Your task to perform on an android device: Open Google Maps and go to "Timeline" Image 0: 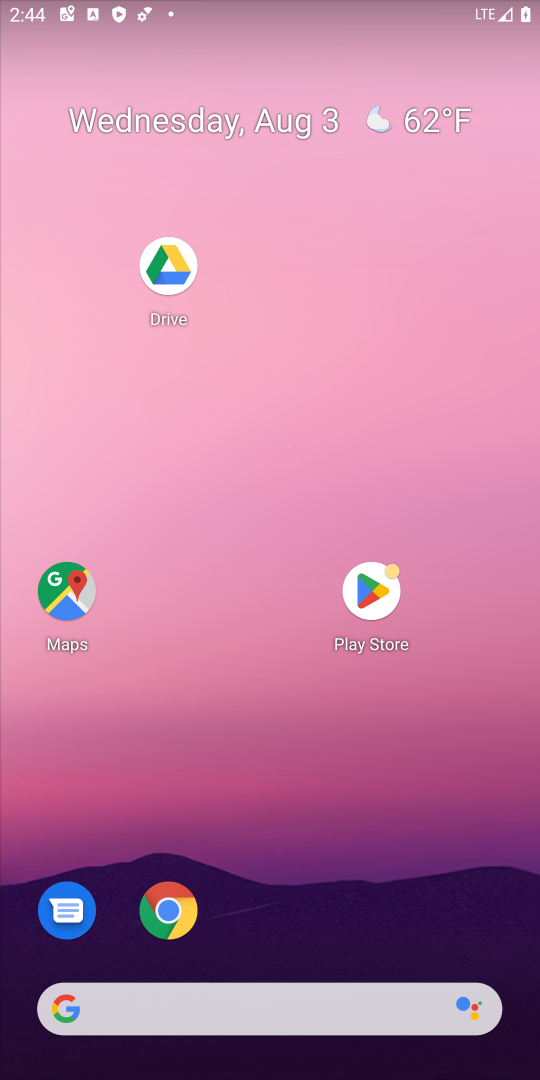
Step 0: drag from (335, 715) to (394, 101)
Your task to perform on an android device: Open Google Maps and go to "Timeline" Image 1: 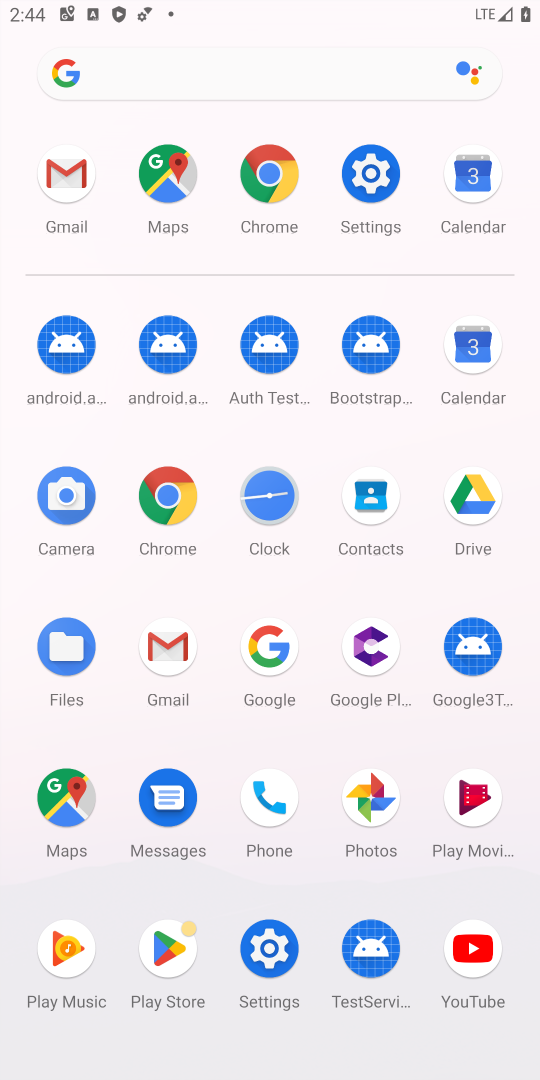
Step 1: click (70, 785)
Your task to perform on an android device: Open Google Maps and go to "Timeline" Image 2: 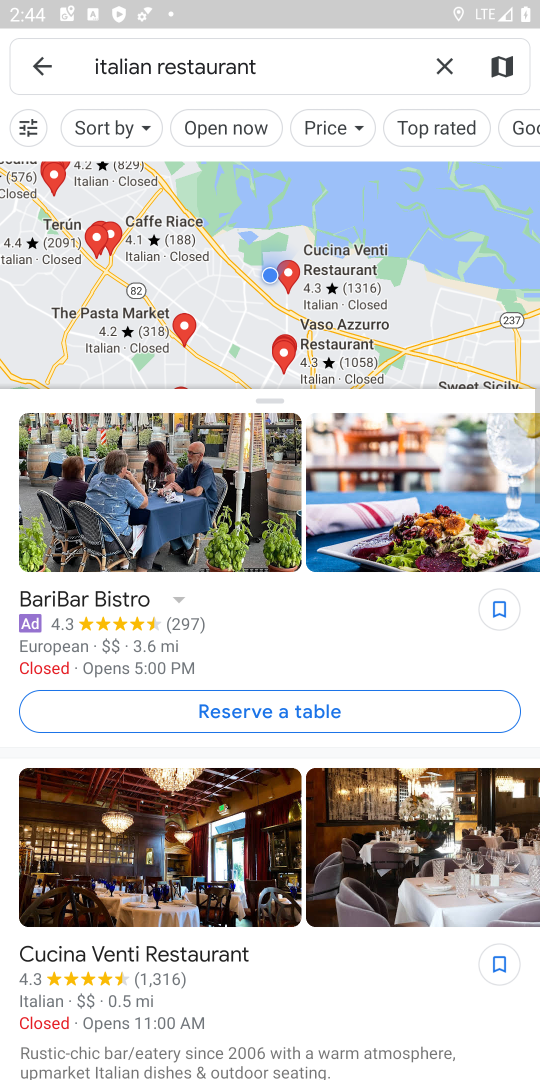
Step 2: press back button
Your task to perform on an android device: Open Google Maps and go to "Timeline" Image 3: 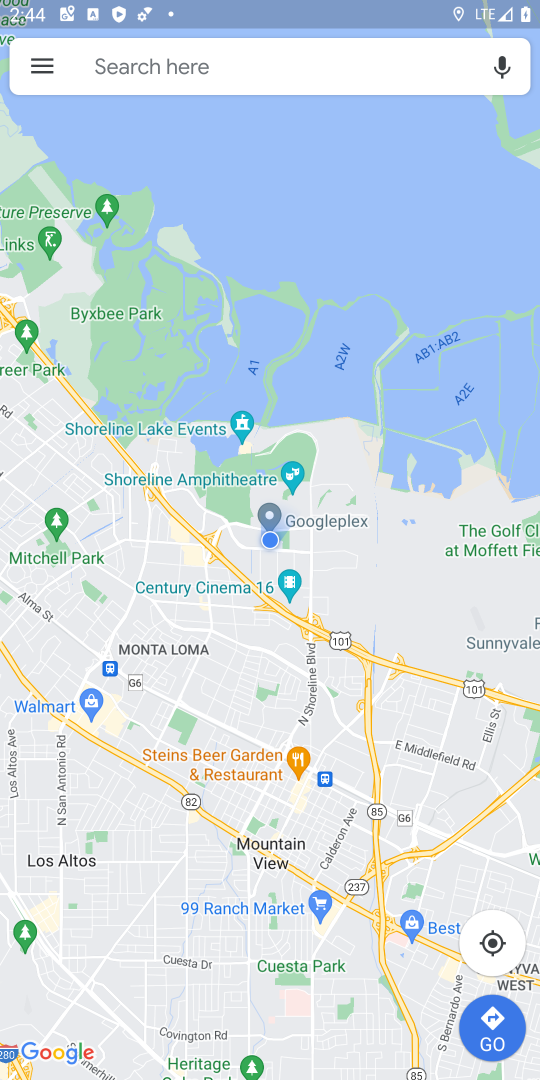
Step 3: click (32, 67)
Your task to perform on an android device: Open Google Maps and go to "Timeline" Image 4: 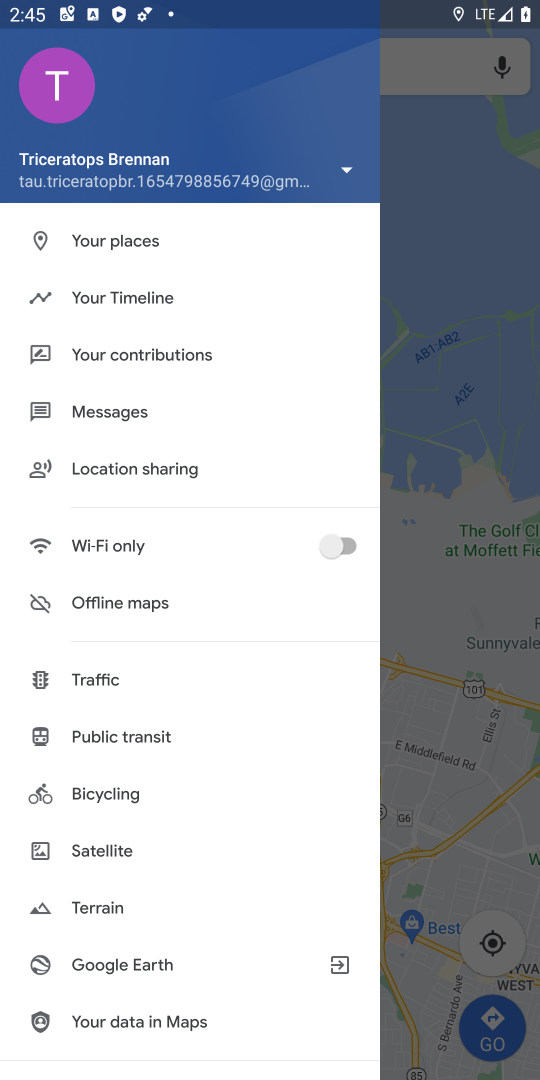
Step 4: click (106, 278)
Your task to perform on an android device: Open Google Maps and go to "Timeline" Image 5: 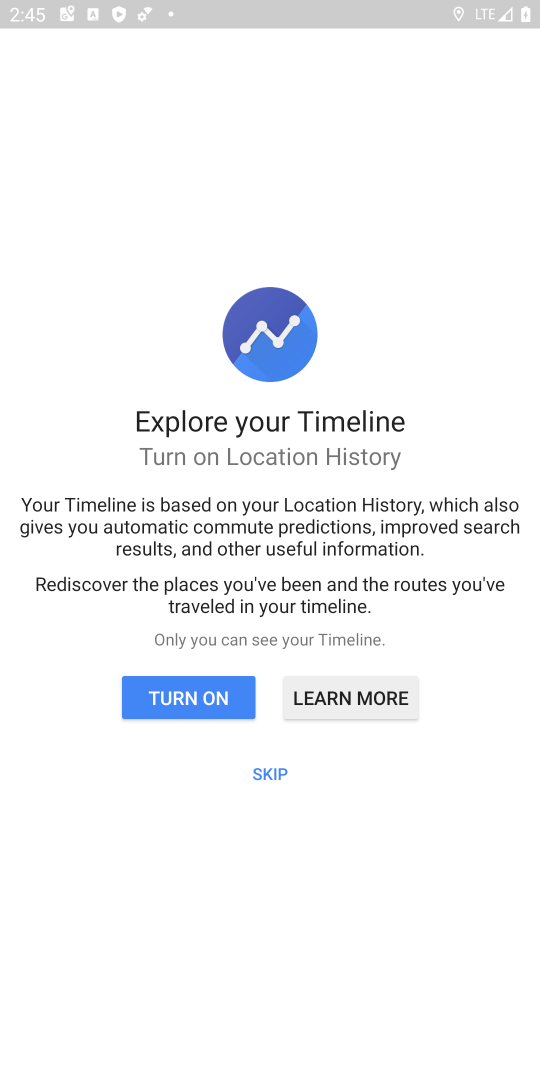
Step 5: click (260, 767)
Your task to perform on an android device: Open Google Maps and go to "Timeline" Image 6: 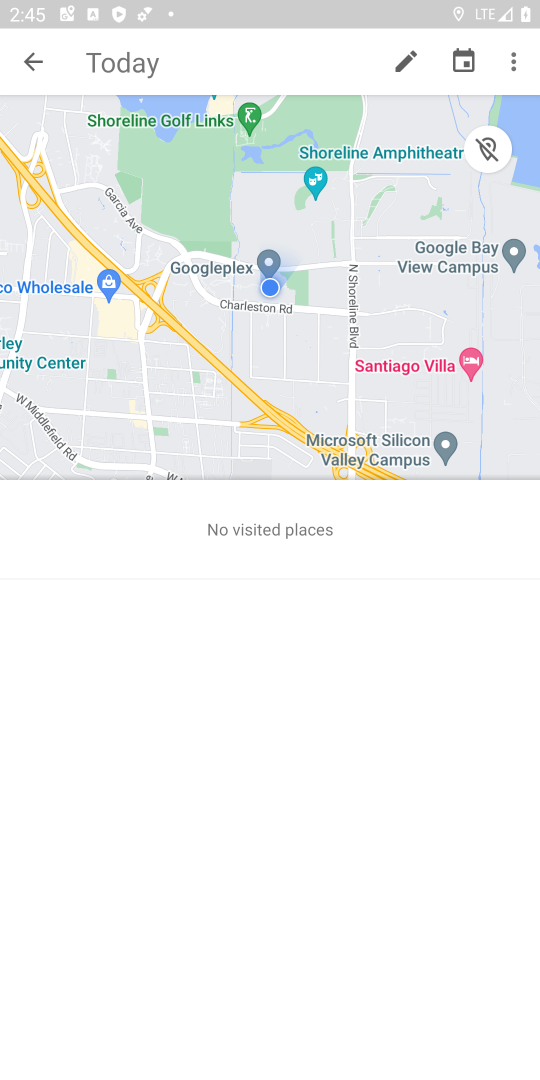
Step 6: click (521, 49)
Your task to perform on an android device: Open Google Maps and go to "Timeline" Image 7: 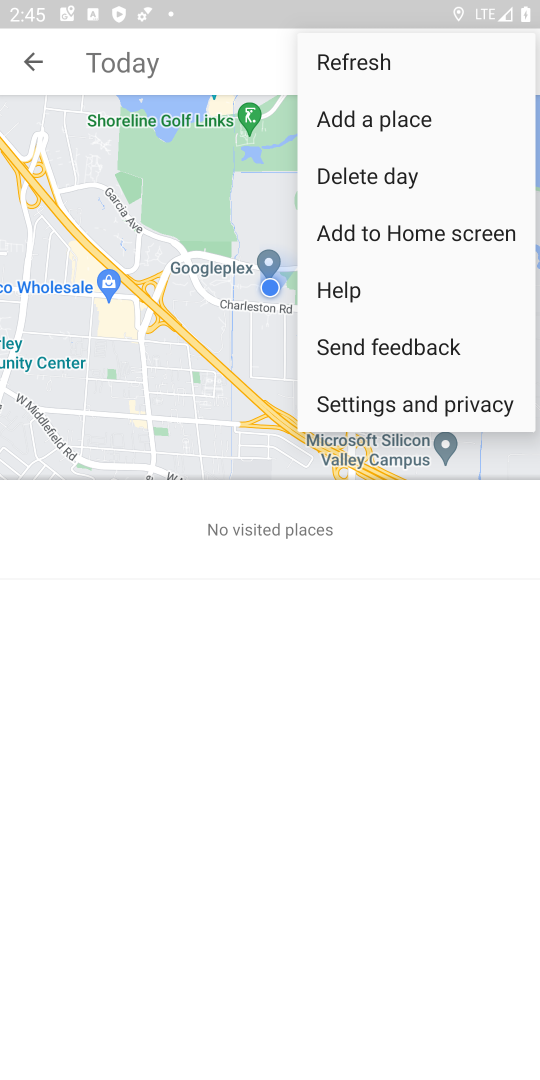
Step 7: click (447, 403)
Your task to perform on an android device: Open Google Maps and go to "Timeline" Image 8: 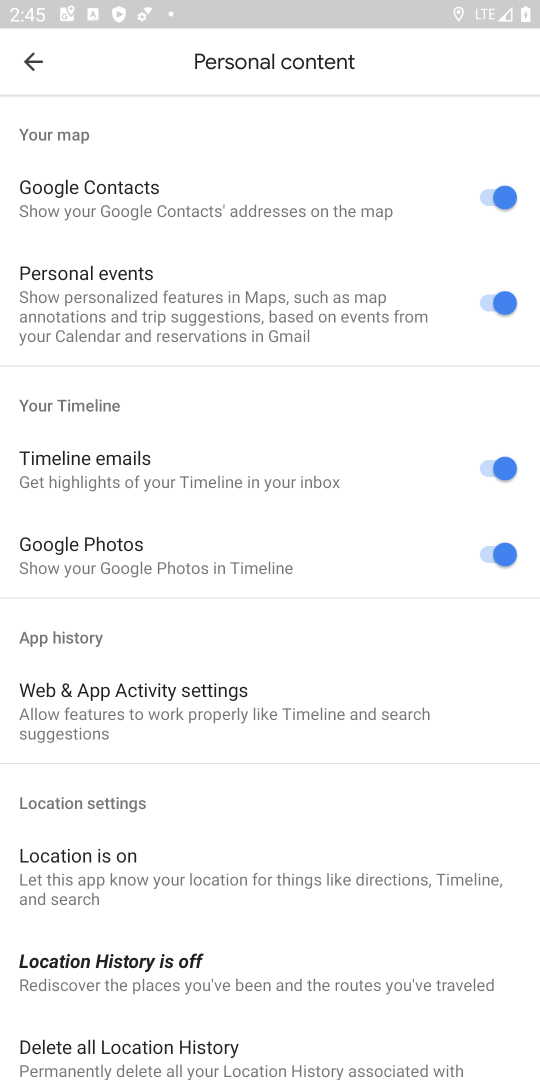
Step 8: task complete